Your task to perform on an android device: Open Amazon Image 0: 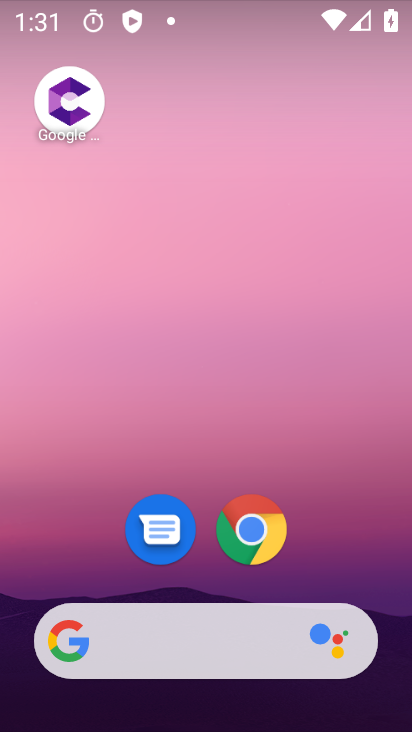
Step 0: drag from (333, 551) to (368, 189)
Your task to perform on an android device: Open Amazon Image 1: 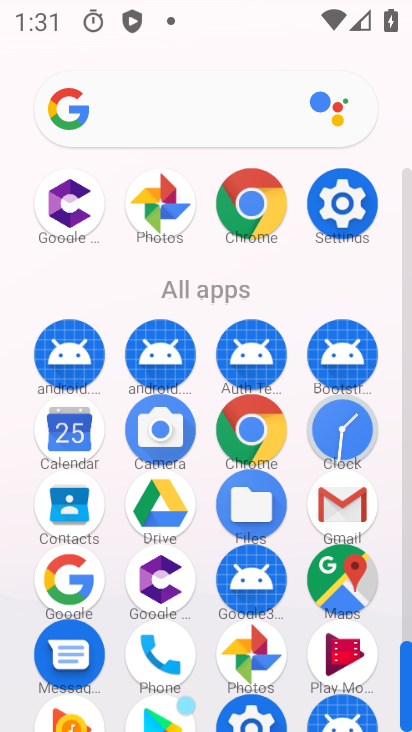
Step 1: click (262, 200)
Your task to perform on an android device: Open Amazon Image 2: 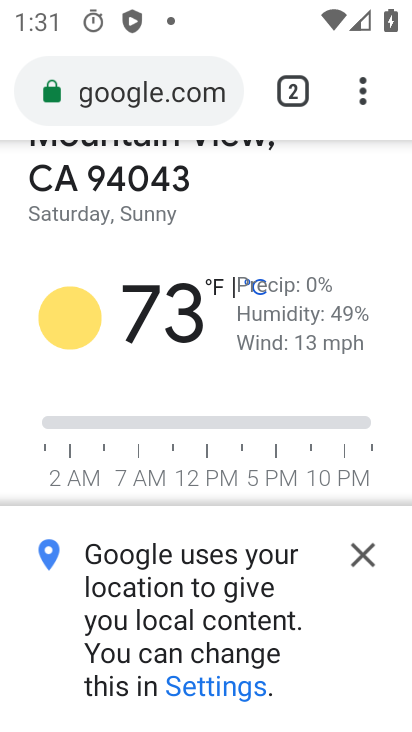
Step 2: click (331, 98)
Your task to perform on an android device: Open Amazon Image 3: 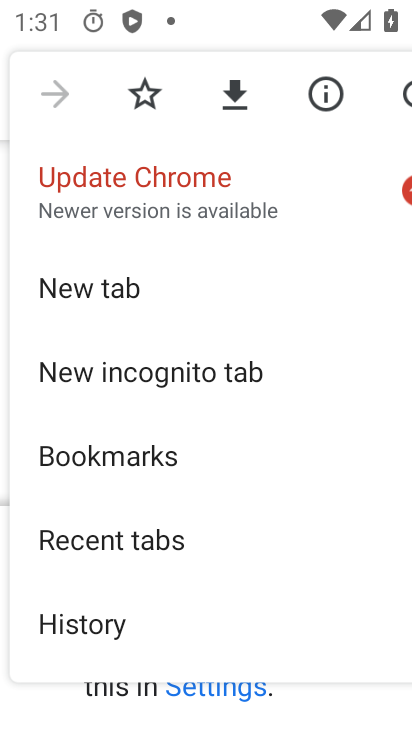
Step 3: click (177, 282)
Your task to perform on an android device: Open Amazon Image 4: 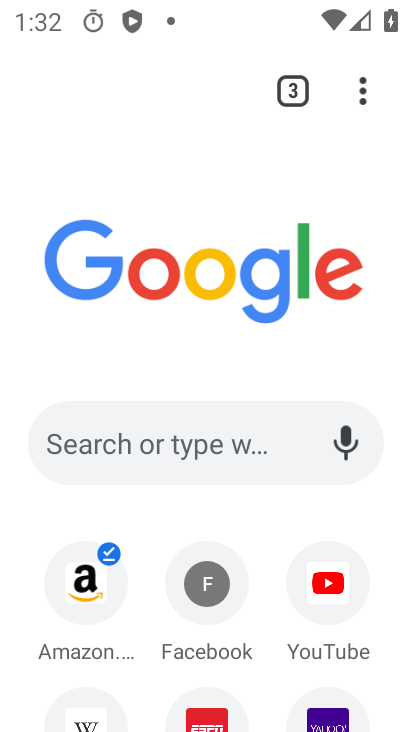
Step 4: click (86, 588)
Your task to perform on an android device: Open Amazon Image 5: 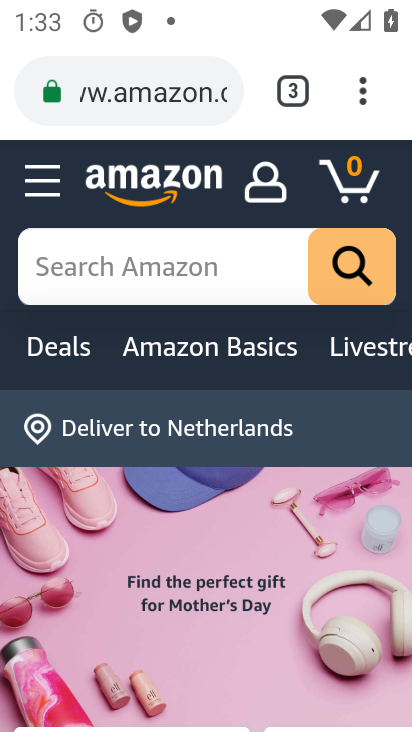
Step 5: task complete